Your task to perform on an android device: Open wifi settings Image 0: 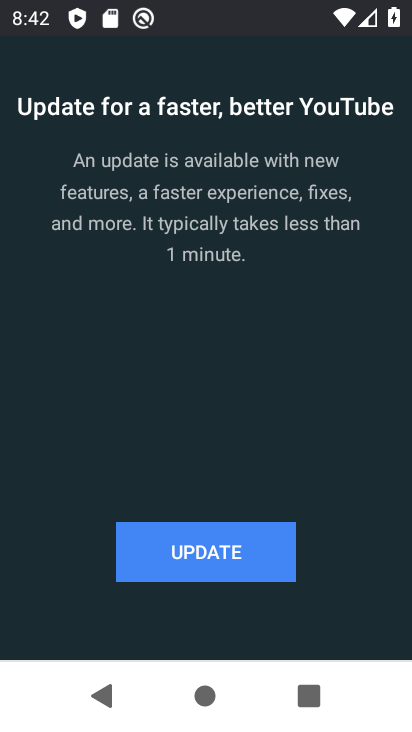
Step 0: press home button
Your task to perform on an android device: Open wifi settings Image 1: 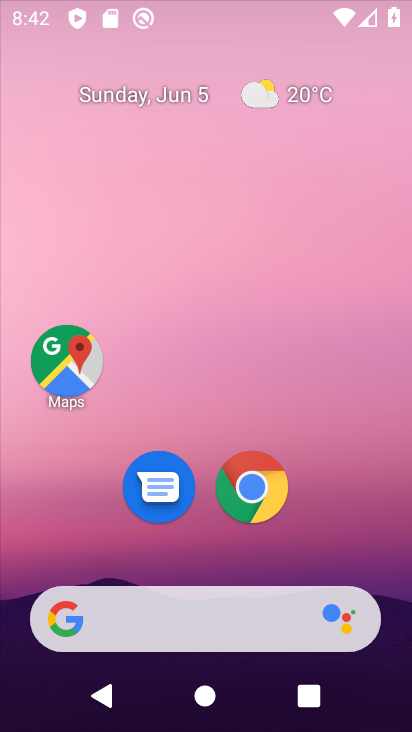
Step 1: drag from (238, 679) to (288, 260)
Your task to perform on an android device: Open wifi settings Image 2: 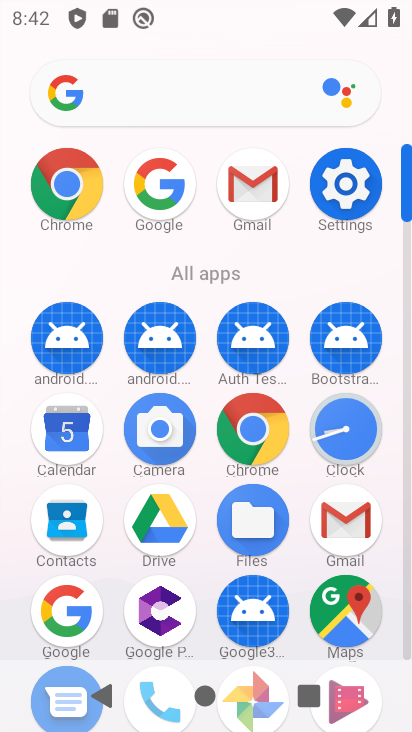
Step 2: click (349, 211)
Your task to perform on an android device: Open wifi settings Image 3: 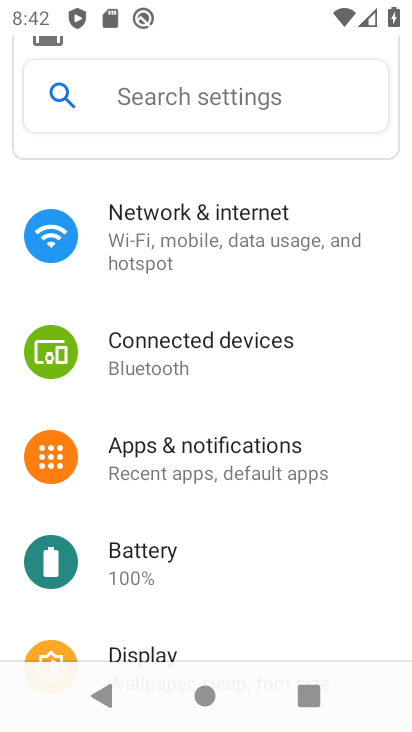
Step 3: click (195, 247)
Your task to perform on an android device: Open wifi settings Image 4: 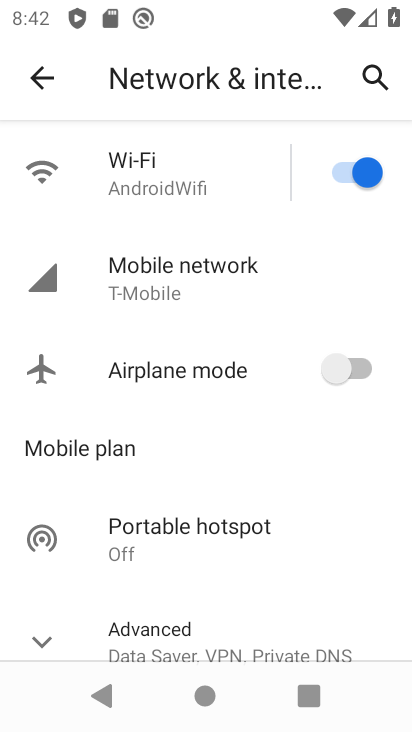
Step 4: click (168, 155)
Your task to perform on an android device: Open wifi settings Image 5: 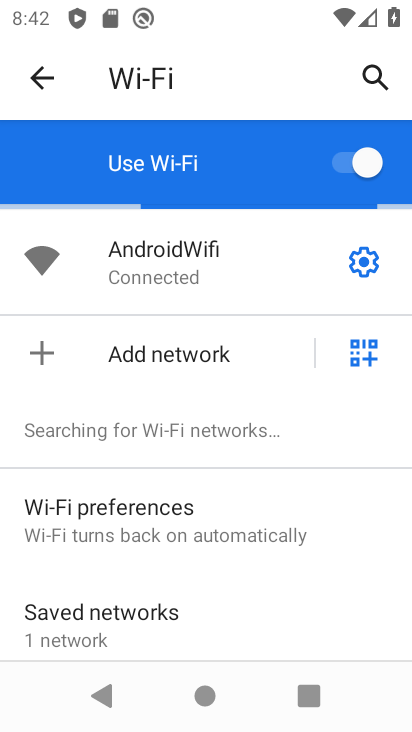
Step 5: task complete